Your task to perform on an android device: Show me popular videos on Youtube Image 0: 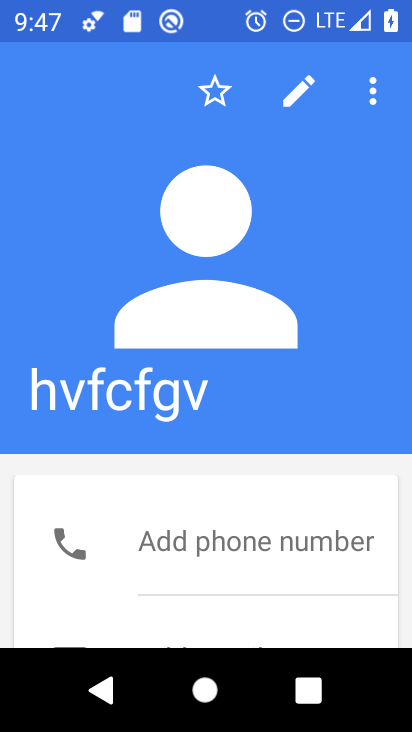
Step 0: press home button
Your task to perform on an android device: Show me popular videos on Youtube Image 1: 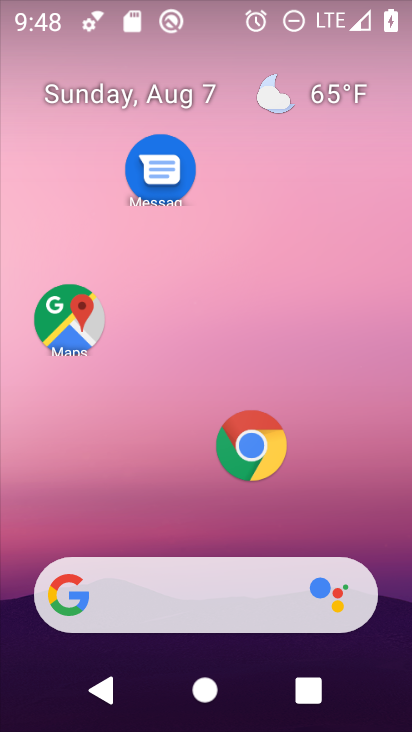
Step 1: drag from (216, 532) to (233, 45)
Your task to perform on an android device: Show me popular videos on Youtube Image 2: 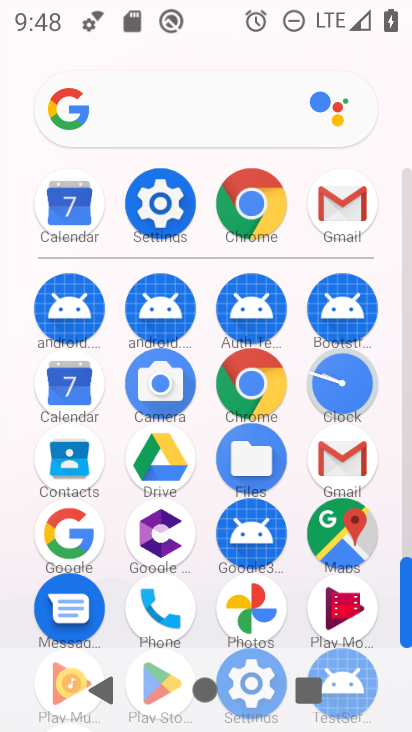
Step 2: drag from (197, 554) to (229, 157)
Your task to perform on an android device: Show me popular videos on Youtube Image 3: 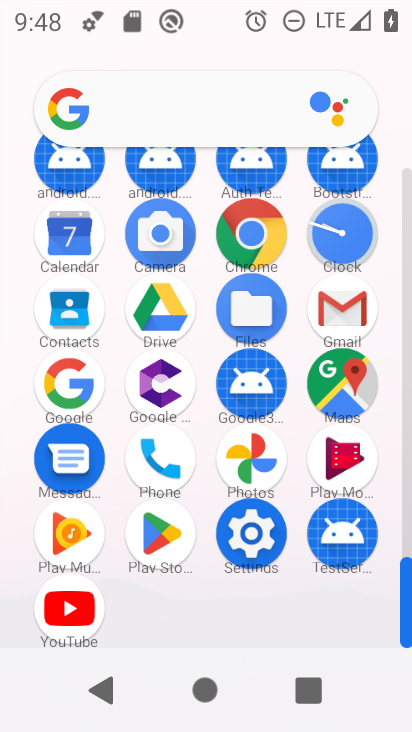
Step 3: click (65, 601)
Your task to perform on an android device: Show me popular videos on Youtube Image 4: 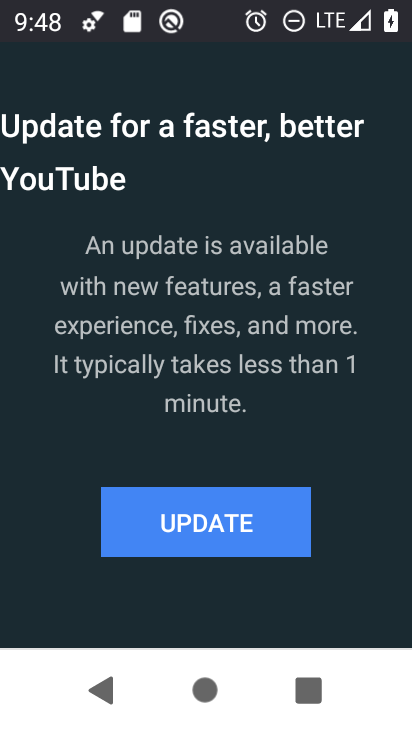
Step 4: click (213, 519)
Your task to perform on an android device: Show me popular videos on Youtube Image 5: 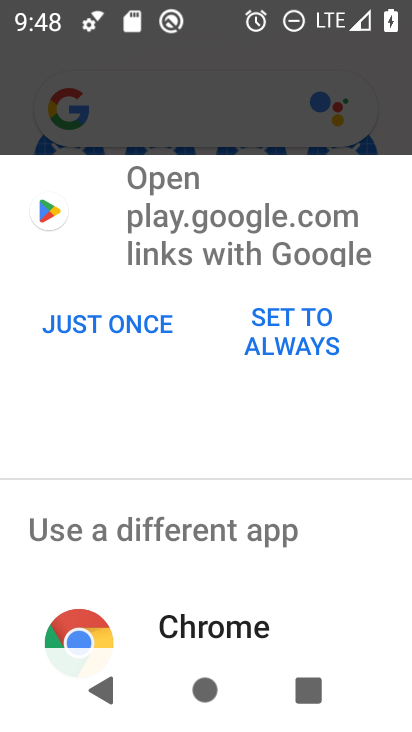
Step 5: click (107, 319)
Your task to perform on an android device: Show me popular videos on Youtube Image 6: 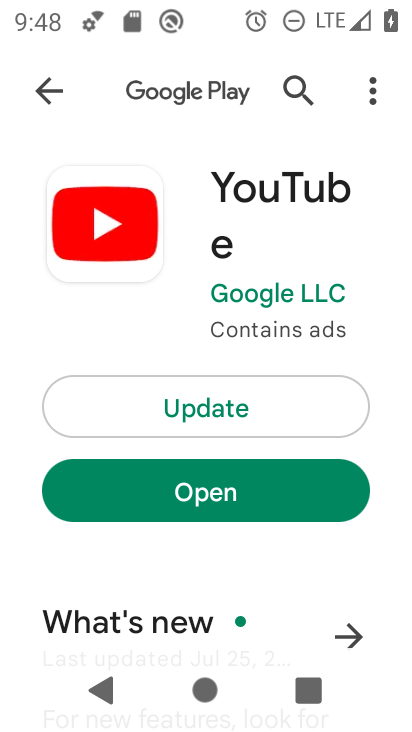
Step 6: click (201, 399)
Your task to perform on an android device: Show me popular videos on Youtube Image 7: 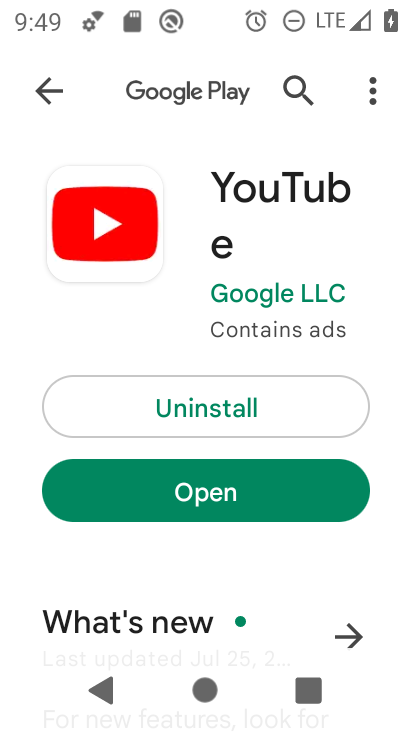
Step 7: click (216, 490)
Your task to perform on an android device: Show me popular videos on Youtube Image 8: 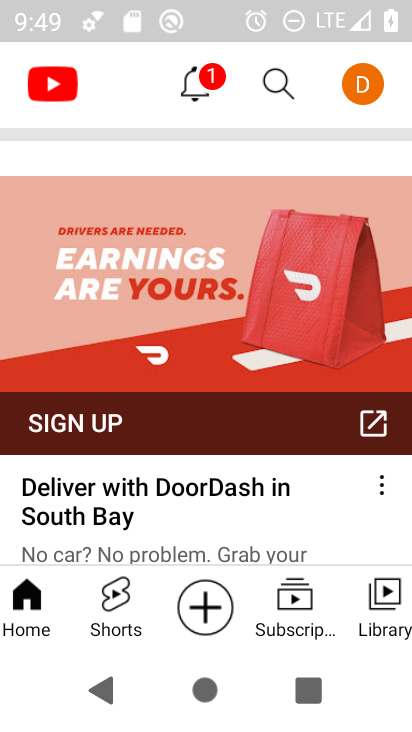
Step 8: drag from (118, 193) to (133, 580)
Your task to perform on an android device: Show me popular videos on Youtube Image 9: 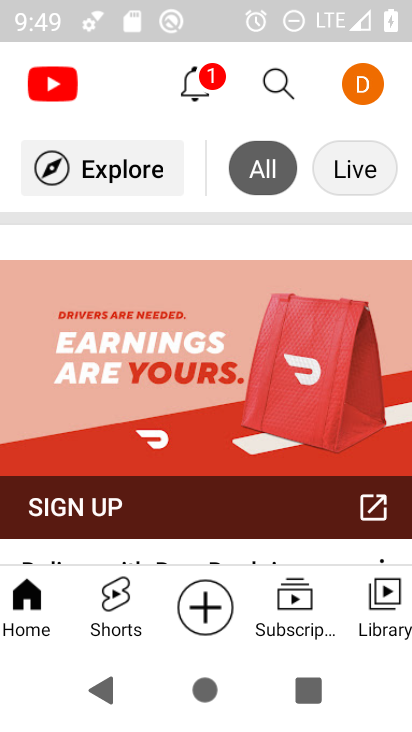
Step 9: click (71, 161)
Your task to perform on an android device: Show me popular videos on Youtube Image 10: 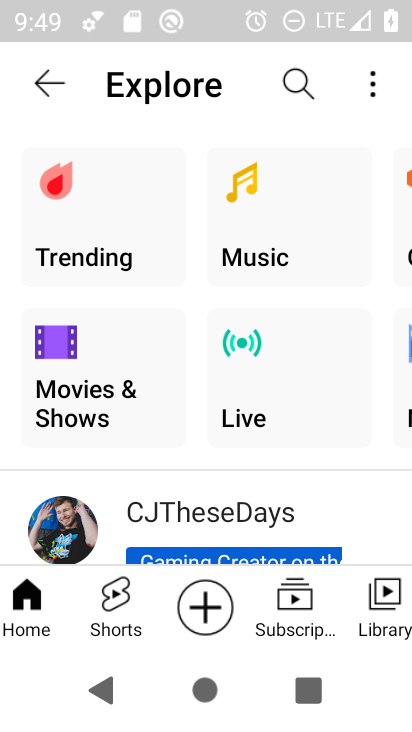
Step 10: click (82, 224)
Your task to perform on an android device: Show me popular videos on Youtube Image 11: 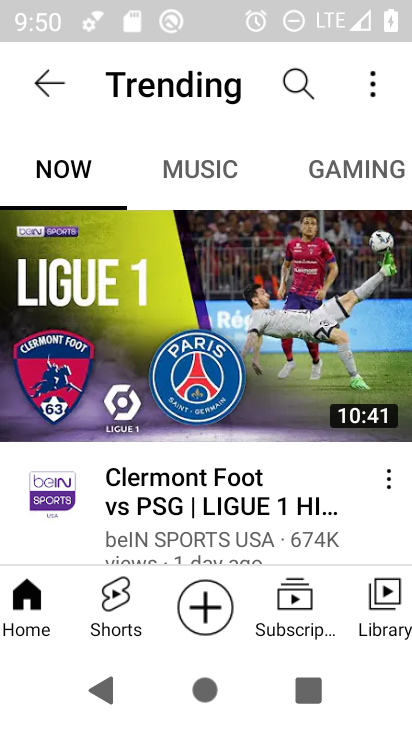
Step 11: task complete